Your task to perform on an android device: turn smart compose on in the gmail app Image 0: 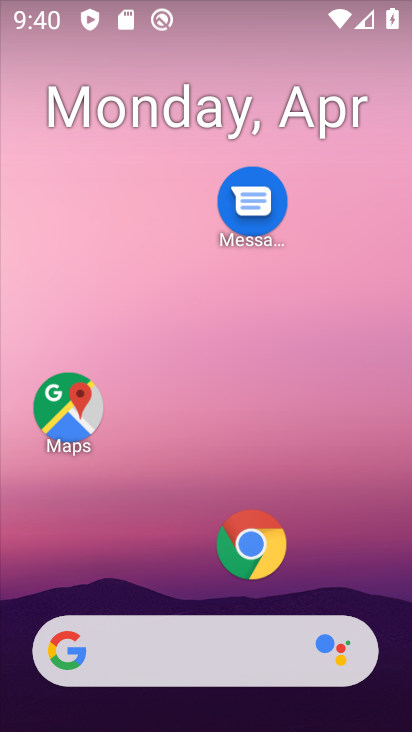
Step 0: click (66, 391)
Your task to perform on an android device: turn smart compose on in the gmail app Image 1: 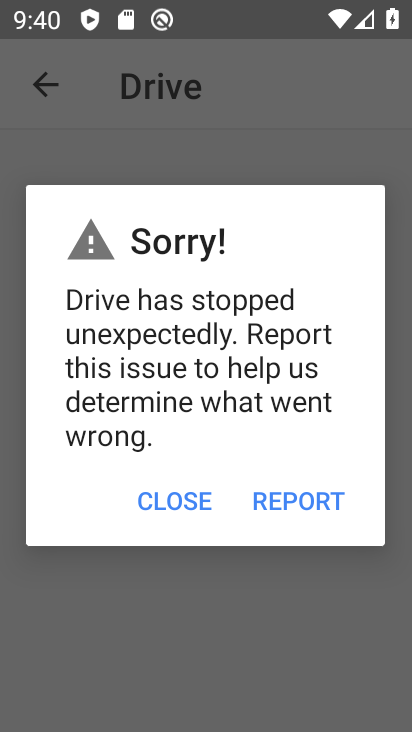
Step 1: press home button
Your task to perform on an android device: turn smart compose on in the gmail app Image 2: 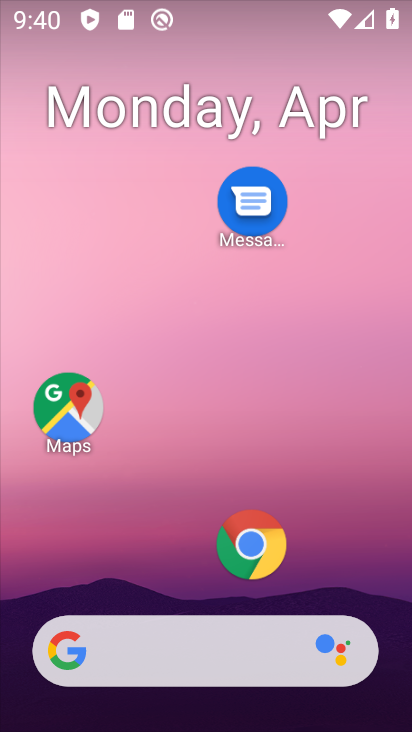
Step 2: drag from (186, 558) to (182, 110)
Your task to perform on an android device: turn smart compose on in the gmail app Image 3: 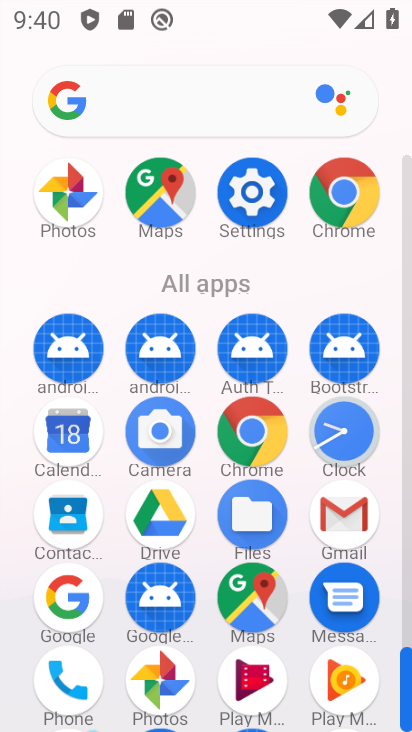
Step 3: click (338, 503)
Your task to perform on an android device: turn smart compose on in the gmail app Image 4: 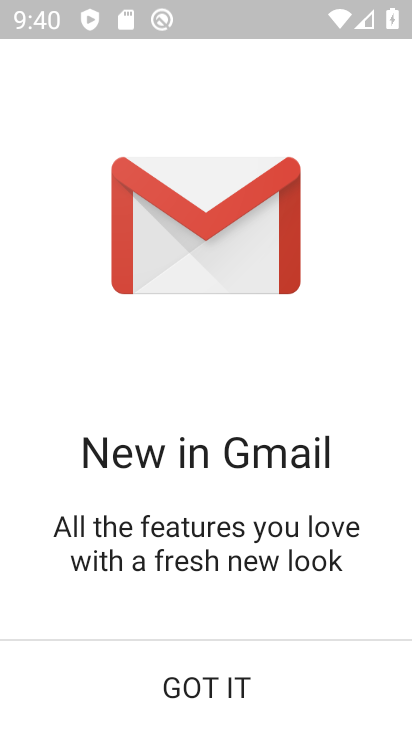
Step 4: click (221, 706)
Your task to perform on an android device: turn smart compose on in the gmail app Image 5: 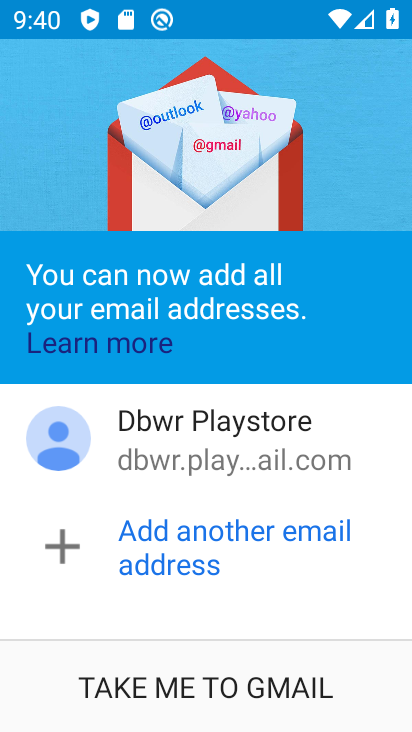
Step 5: click (200, 706)
Your task to perform on an android device: turn smart compose on in the gmail app Image 6: 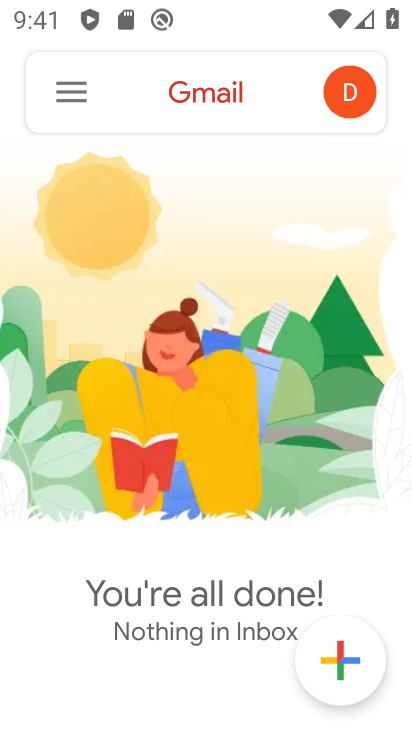
Step 6: click (67, 80)
Your task to perform on an android device: turn smart compose on in the gmail app Image 7: 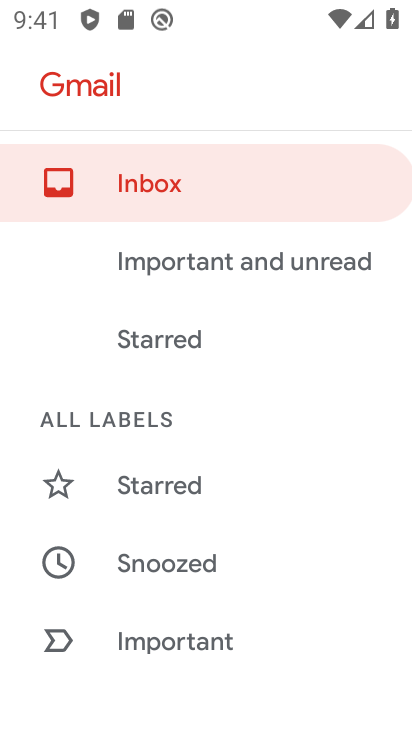
Step 7: click (194, 279)
Your task to perform on an android device: turn smart compose on in the gmail app Image 8: 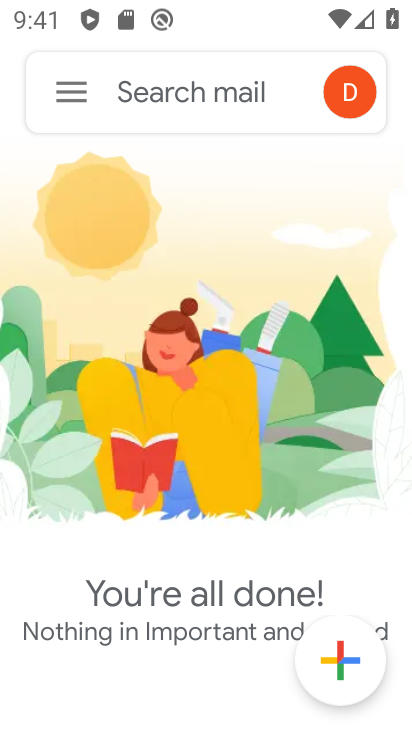
Step 8: click (69, 87)
Your task to perform on an android device: turn smart compose on in the gmail app Image 9: 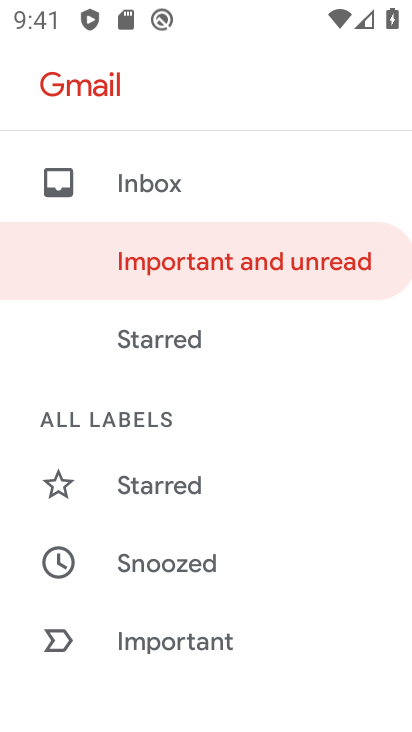
Step 9: drag from (201, 677) to (232, 70)
Your task to perform on an android device: turn smart compose on in the gmail app Image 10: 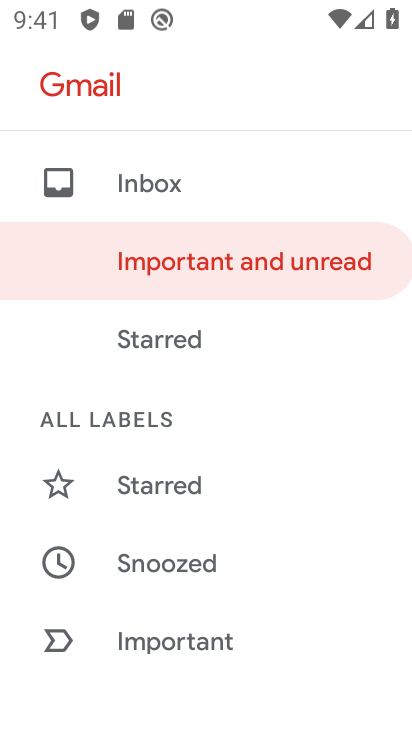
Step 10: drag from (159, 615) to (202, 112)
Your task to perform on an android device: turn smart compose on in the gmail app Image 11: 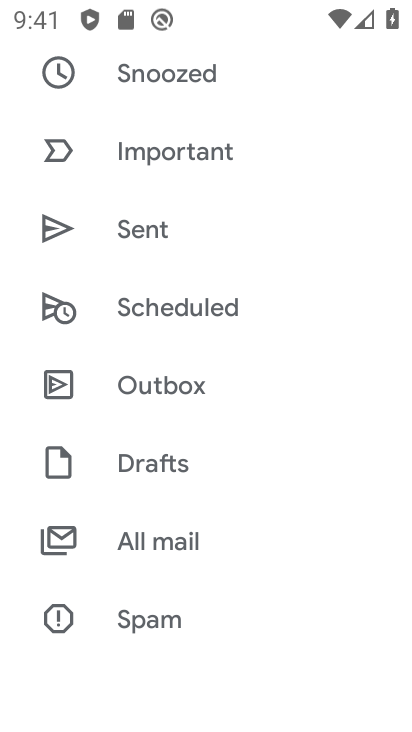
Step 11: drag from (150, 629) to (171, 67)
Your task to perform on an android device: turn smart compose on in the gmail app Image 12: 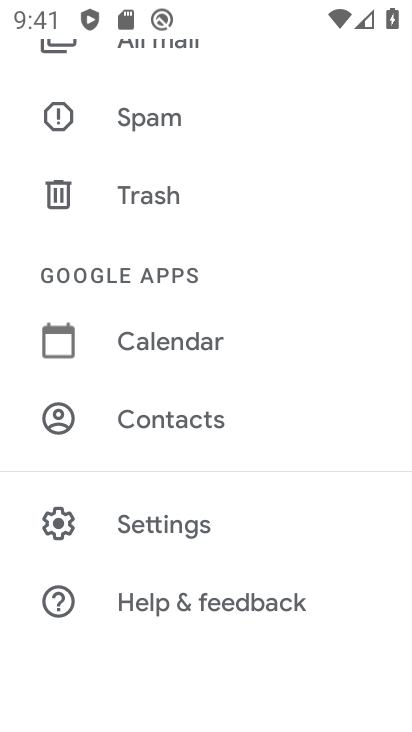
Step 12: click (97, 524)
Your task to perform on an android device: turn smart compose on in the gmail app Image 13: 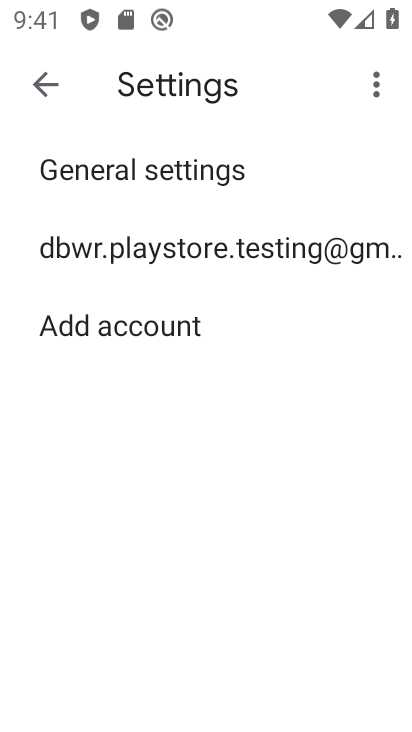
Step 13: click (129, 263)
Your task to perform on an android device: turn smart compose on in the gmail app Image 14: 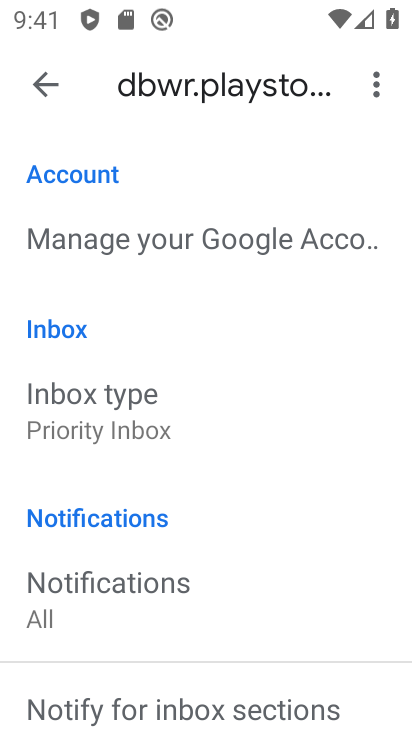
Step 14: task complete